Your task to perform on an android device: Search for Mexican restaurants on Maps Image 0: 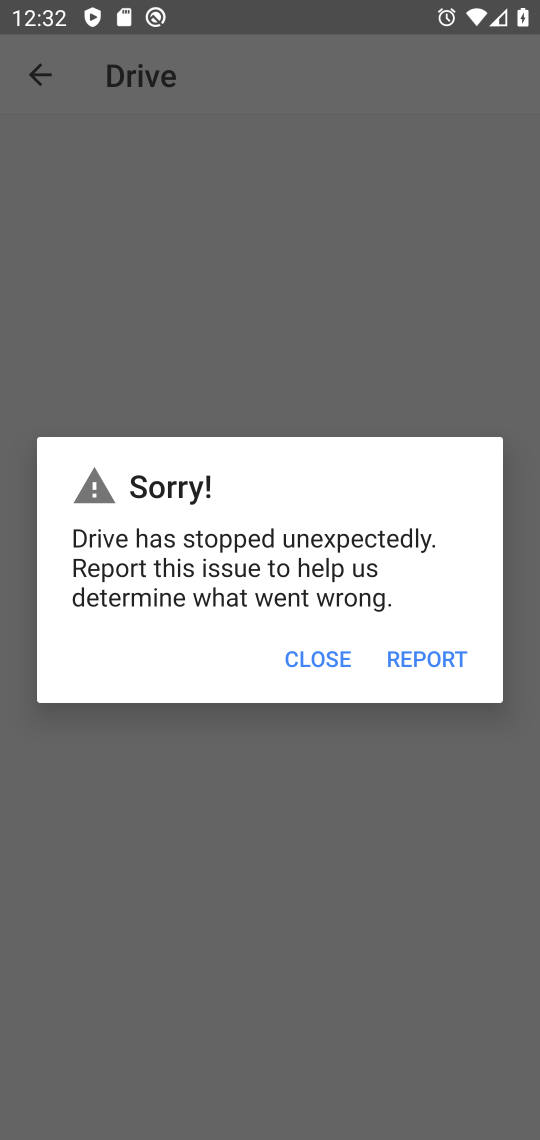
Step 0: press home button
Your task to perform on an android device: Search for Mexican restaurants on Maps Image 1: 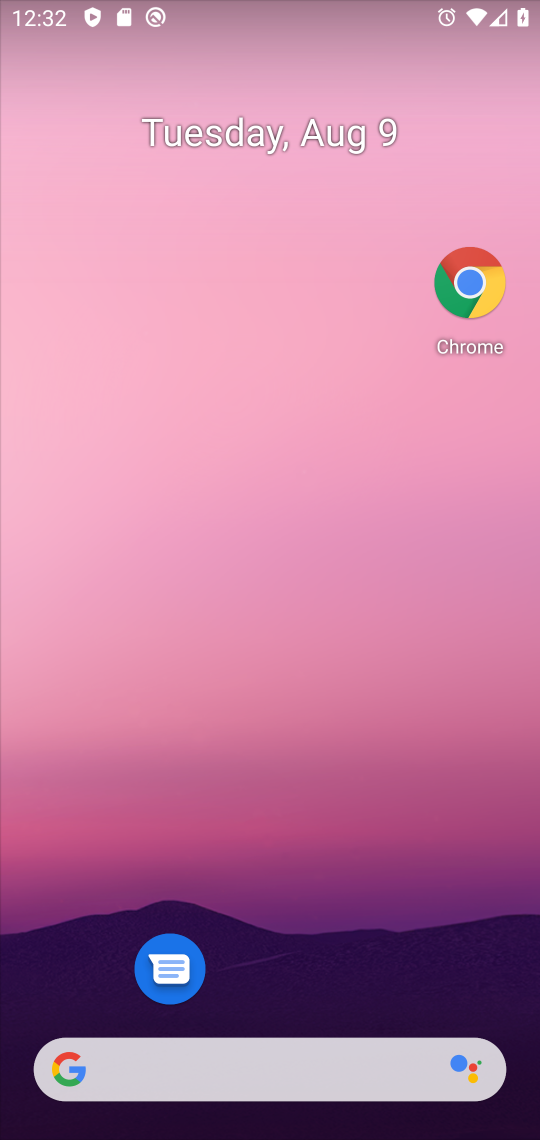
Step 1: drag from (275, 981) to (356, 491)
Your task to perform on an android device: Search for Mexican restaurants on Maps Image 2: 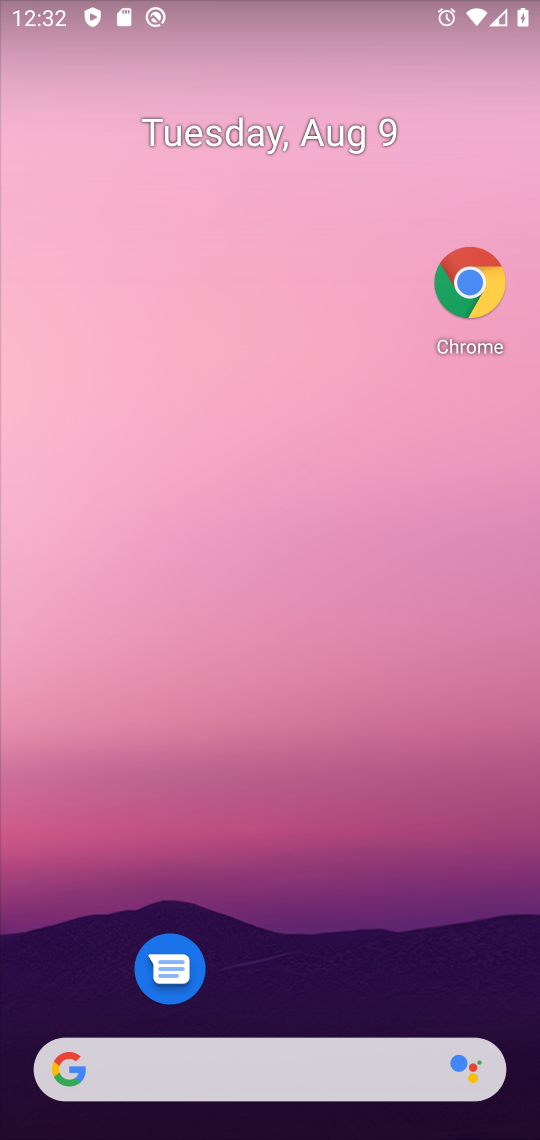
Step 2: drag from (299, 940) to (430, 561)
Your task to perform on an android device: Search for Mexican restaurants on Maps Image 3: 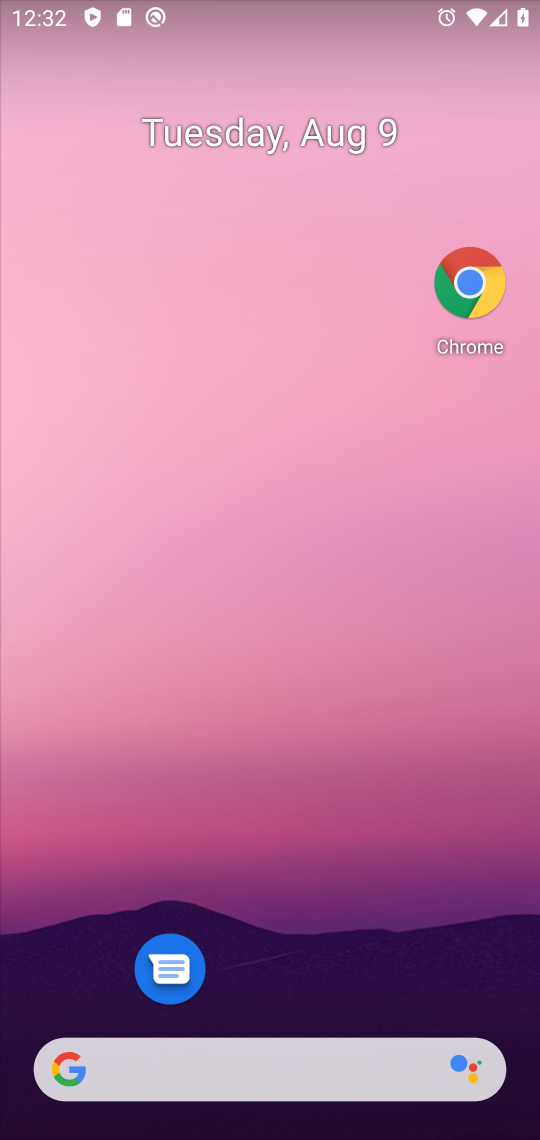
Step 3: drag from (302, 1000) to (452, 544)
Your task to perform on an android device: Search for Mexican restaurants on Maps Image 4: 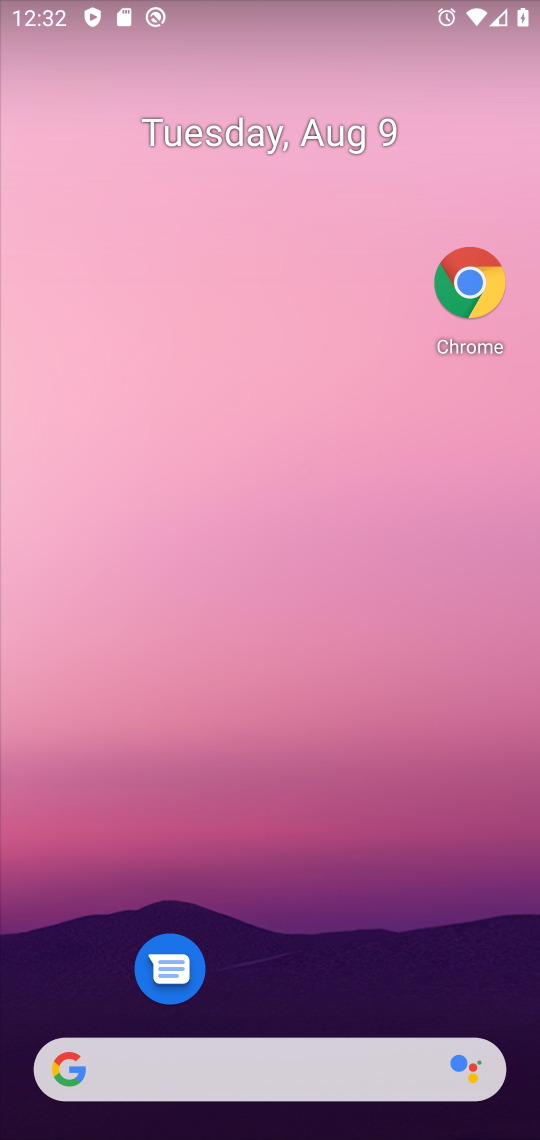
Step 4: drag from (259, 859) to (378, 438)
Your task to perform on an android device: Search for Mexican restaurants on Maps Image 5: 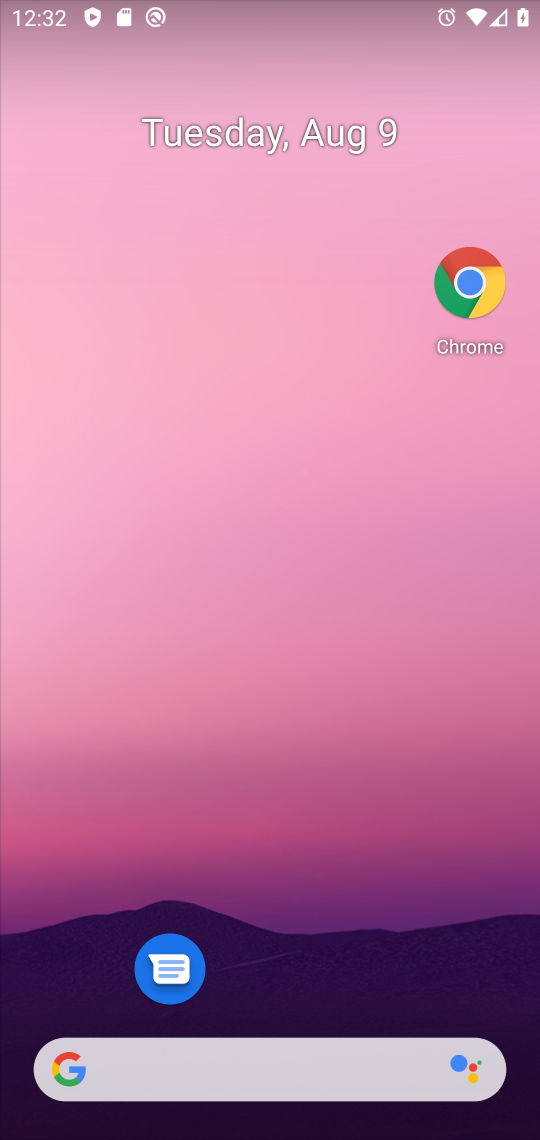
Step 5: drag from (316, 861) to (433, 163)
Your task to perform on an android device: Search for Mexican restaurants on Maps Image 6: 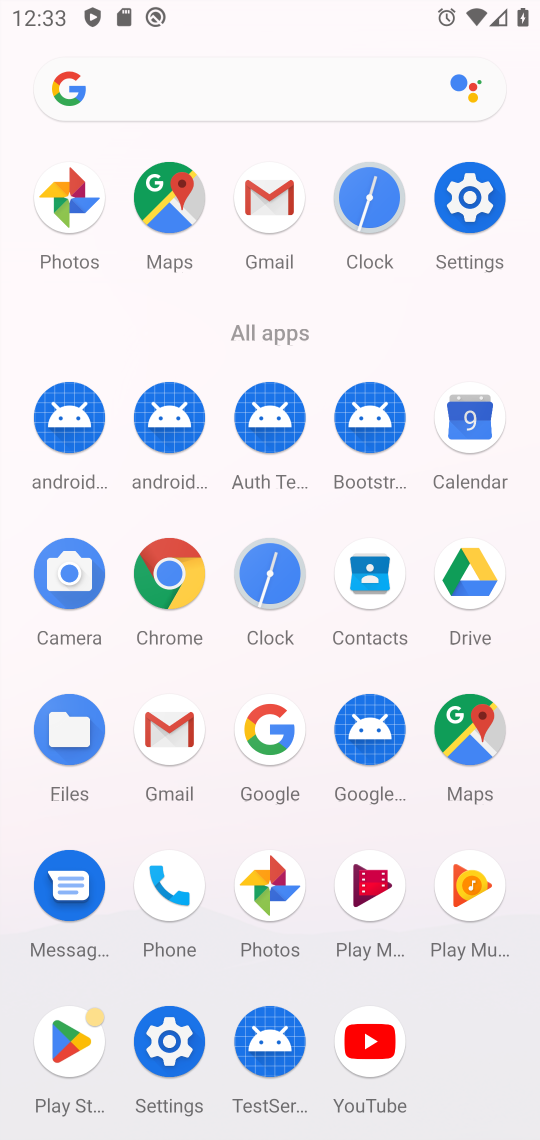
Step 6: click (459, 706)
Your task to perform on an android device: Search for Mexican restaurants on Maps Image 7: 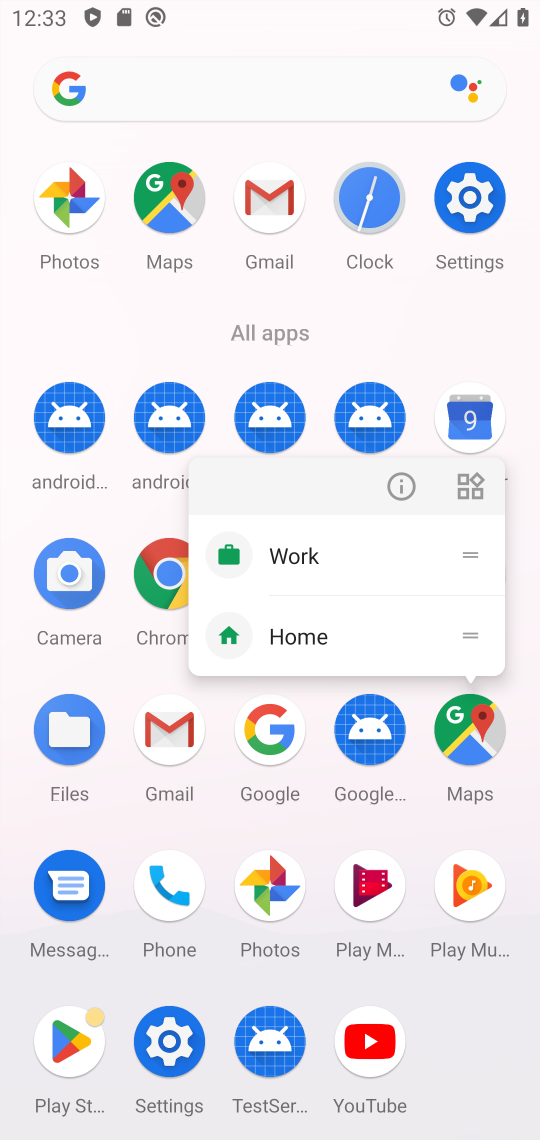
Step 7: click (395, 484)
Your task to perform on an android device: Search for Mexican restaurants on Maps Image 8: 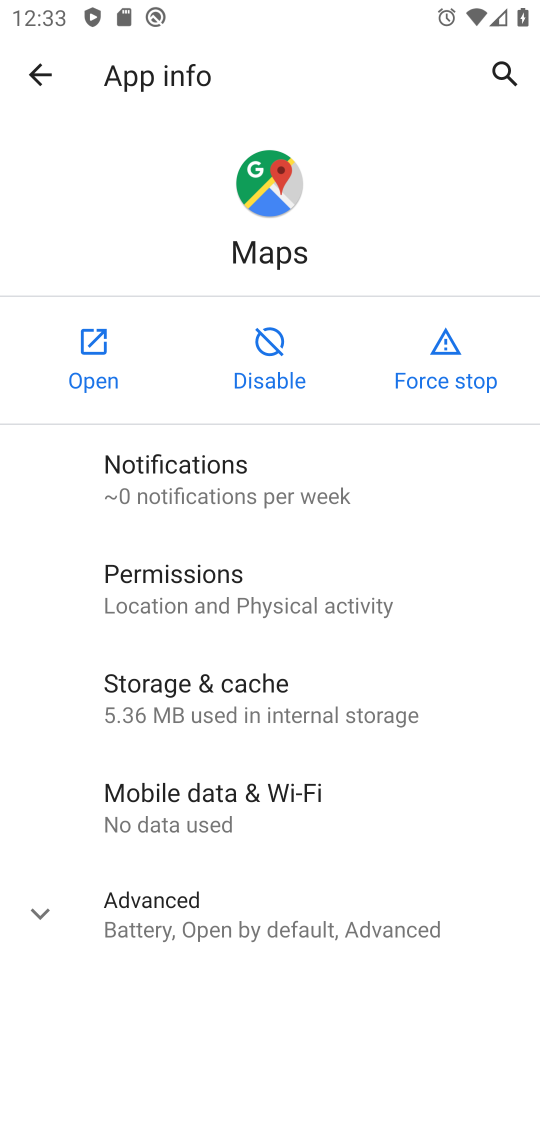
Step 8: click (92, 364)
Your task to perform on an android device: Search for Mexican restaurants on Maps Image 9: 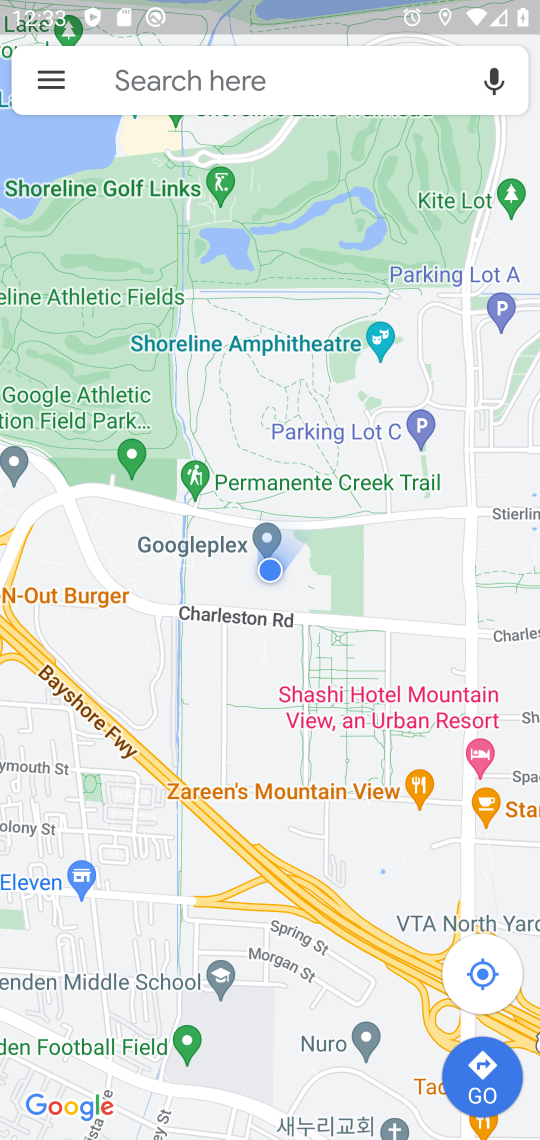
Step 9: click (257, 81)
Your task to perform on an android device: Search for Mexican restaurants on Maps Image 10: 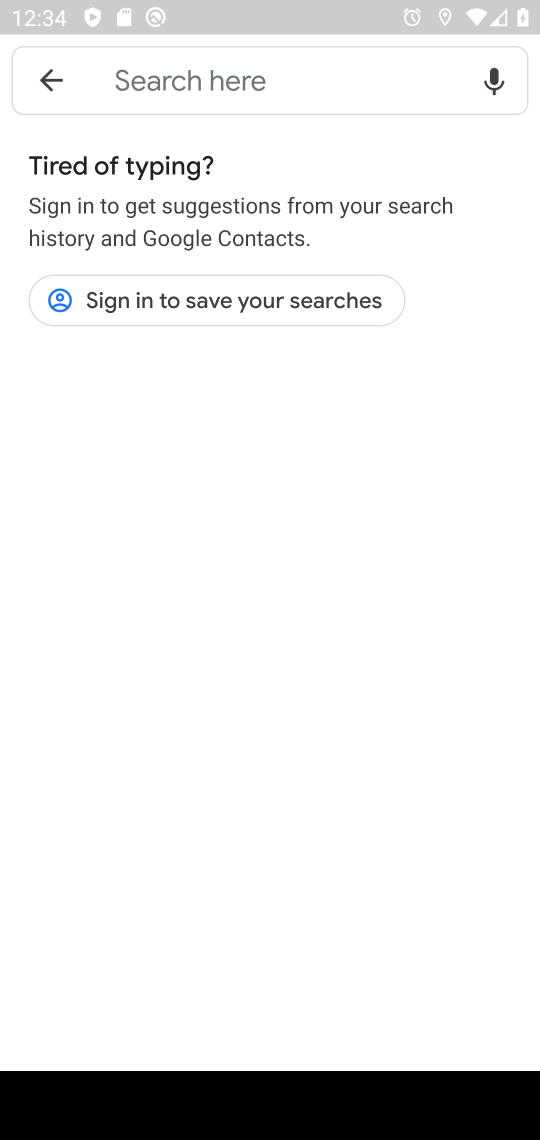
Step 10: type "Mexican restaurants"
Your task to perform on an android device: Search for Mexican restaurants on Maps Image 11: 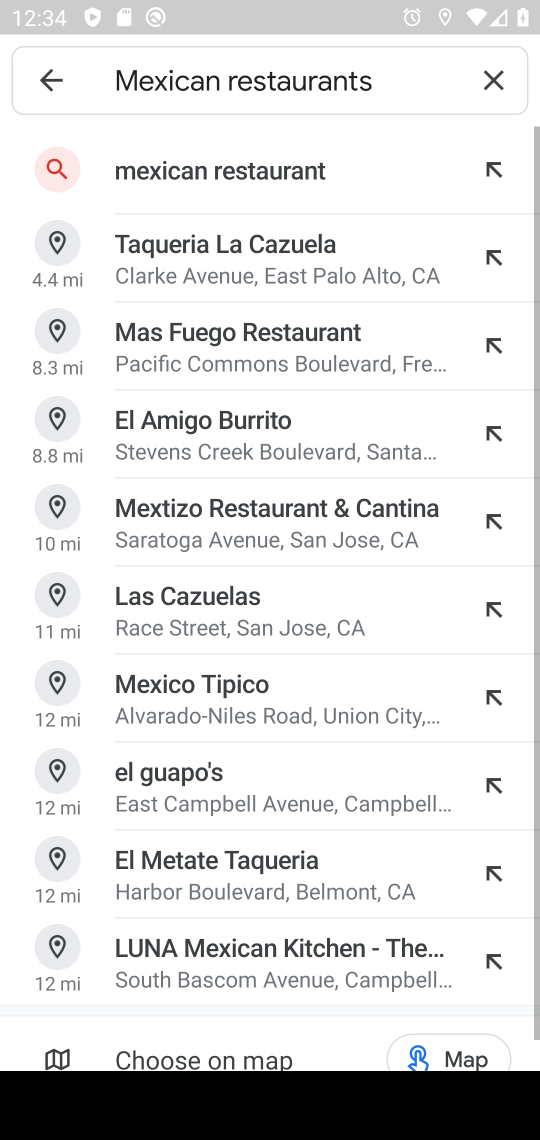
Step 11: click (224, 161)
Your task to perform on an android device: Search for Mexican restaurants on Maps Image 12: 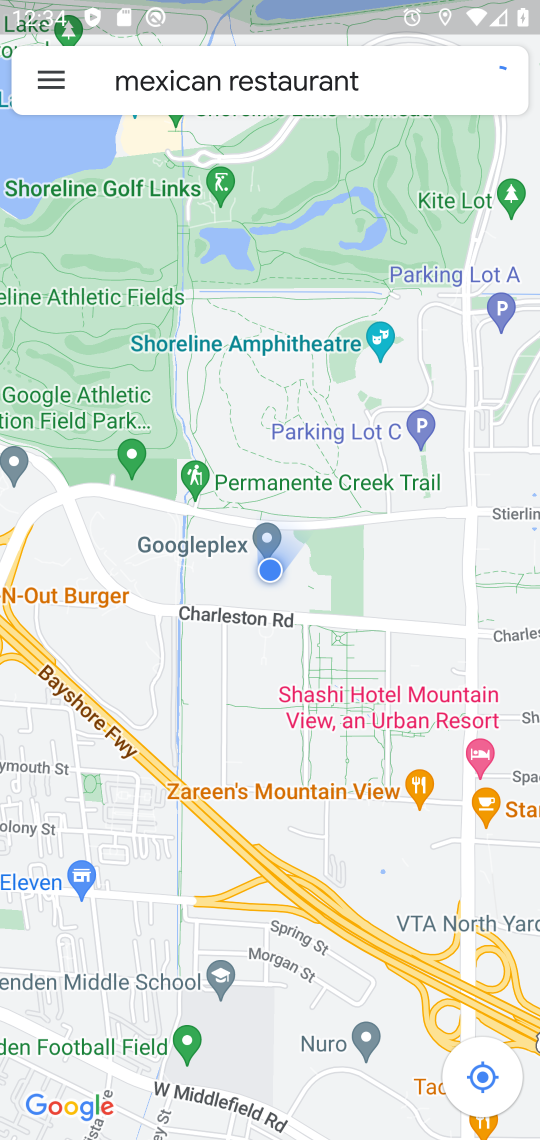
Step 12: task complete